Your task to perform on an android device: Open my contact list Image 0: 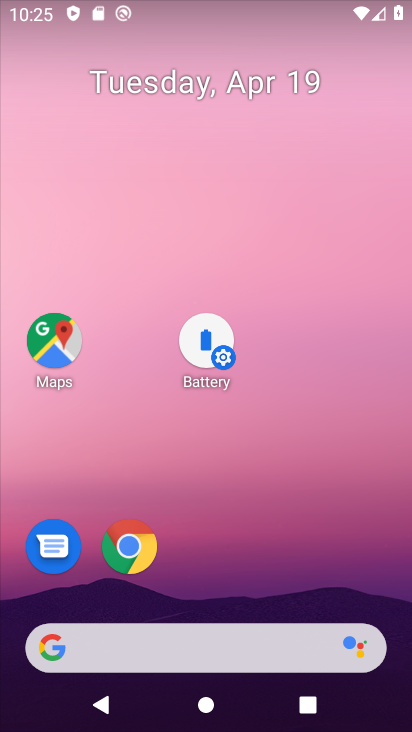
Step 0: drag from (193, 542) to (230, 67)
Your task to perform on an android device: Open my contact list Image 1: 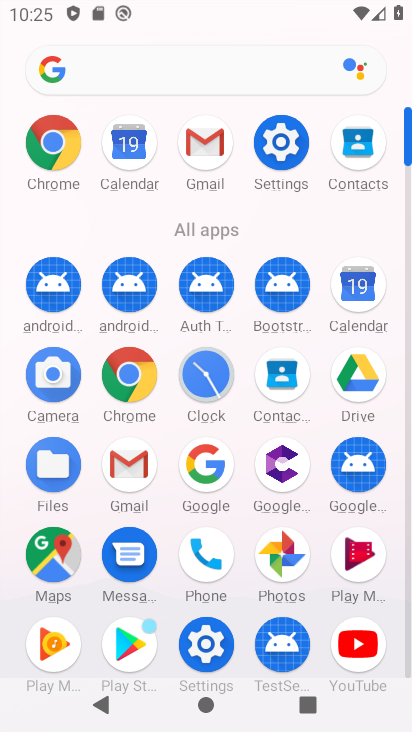
Step 1: click (288, 373)
Your task to perform on an android device: Open my contact list Image 2: 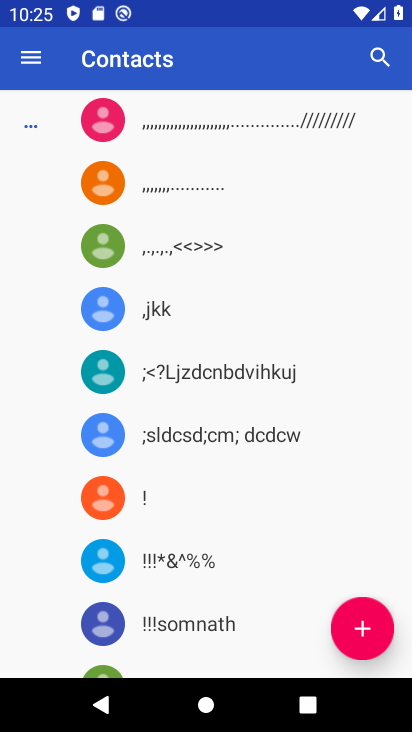
Step 2: task complete